Your task to perform on an android device: clear history in the chrome app Image 0: 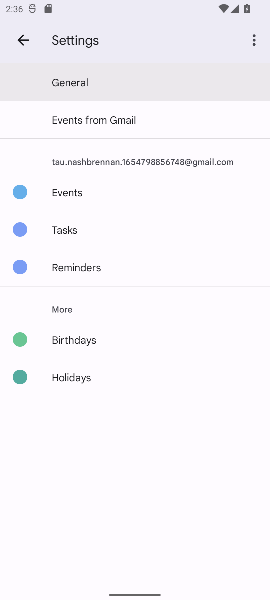
Step 0: press home button
Your task to perform on an android device: clear history in the chrome app Image 1: 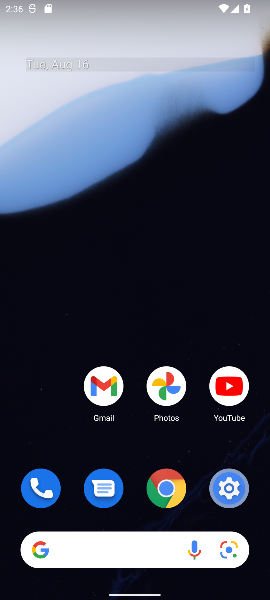
Step 1: task complete